Your task to perform on an android device: Open calendar and show me the first week of next month Image 0: 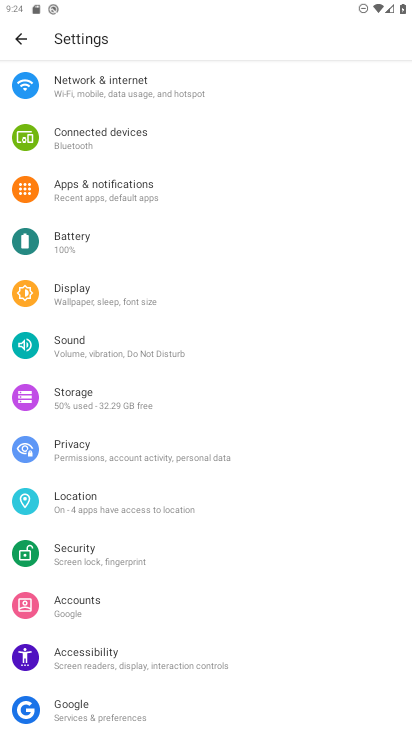
Step 0: press home button
Your task to perform on an android device: Open calendar and show me the first week of next month Image 1: 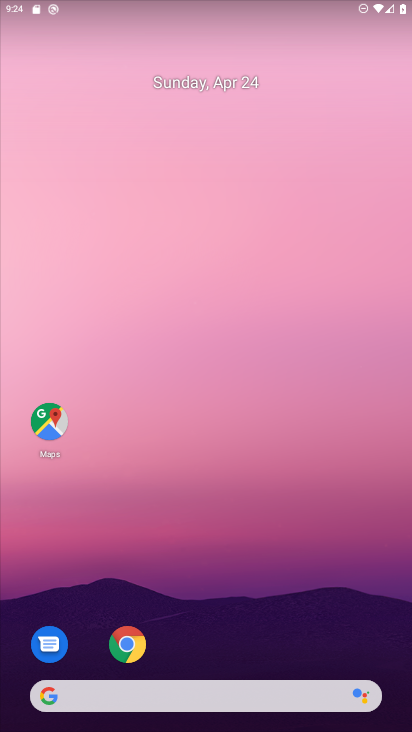
Step 1: drag from (218, 112) to (222, 39)
Your task to perform on an android device: Open calendar and show me the first week of next month Image 2: 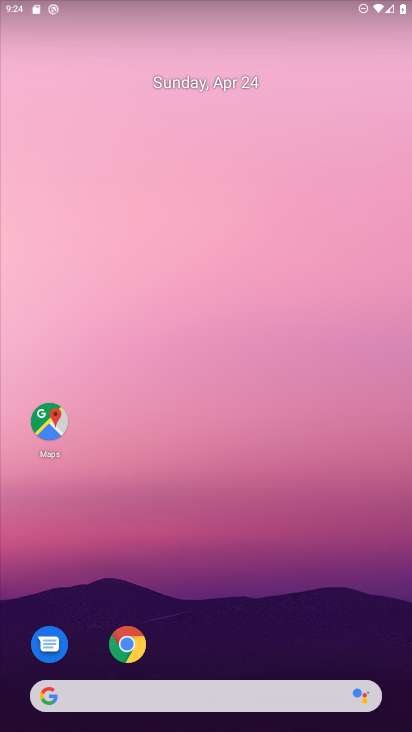
Step 2: drag from (214, 672) to (213, 89)
Your task to perform on an android device: Open calendar and show me the first week of next month Image 3: 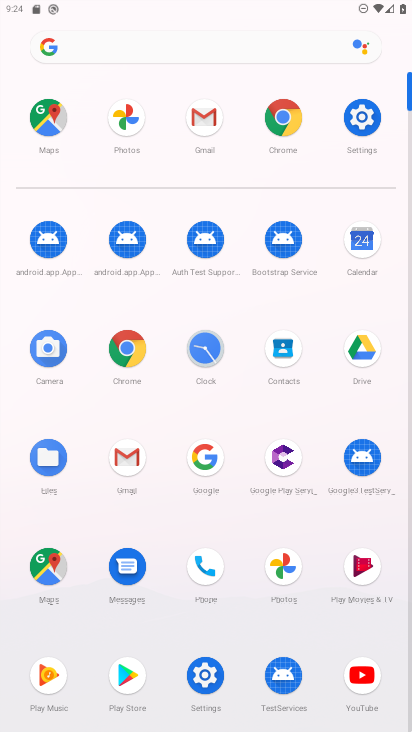
Step 3: click (359, 247)
Your task to perform on an android device: Open calendar and show me the first week of next month Image 4: 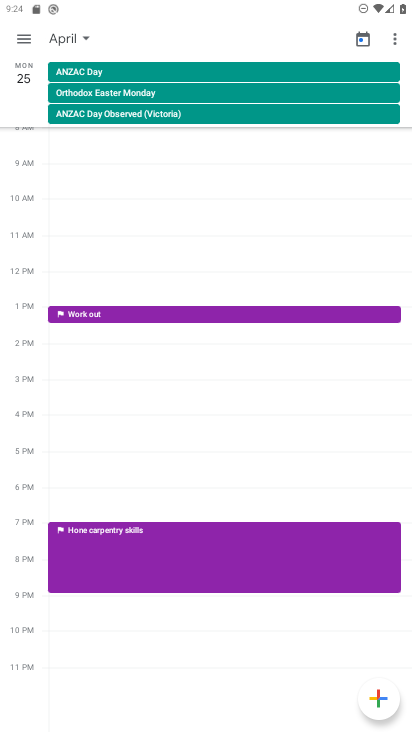
Step 4: click (23, 34)
Your task to perform on an android device: Open calendar and show me the first week of next month Image 5: 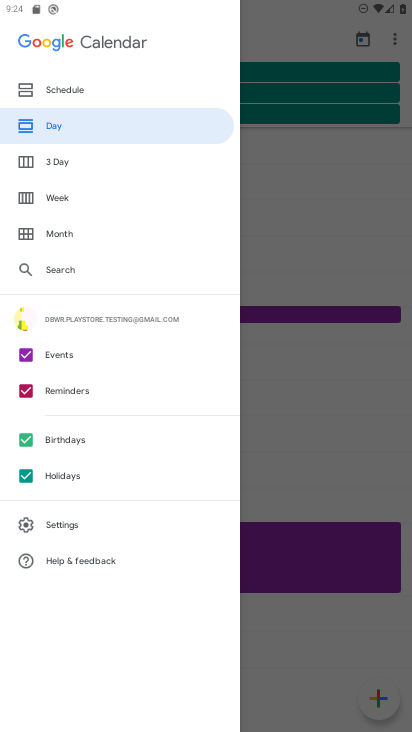
Step 5: click (50, 194)
Your task to perform on an android device: Open calendar and show me the first week of next month Image 6: 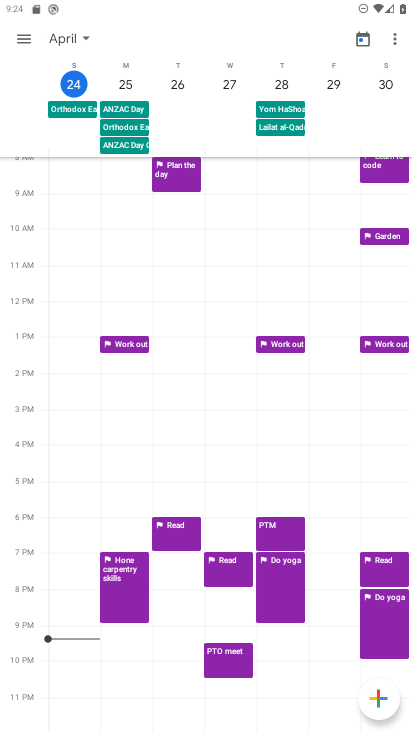
Step 6: task complete